Your task to perform on an android device: Open Youtube and go to "Your channel" Image 0: 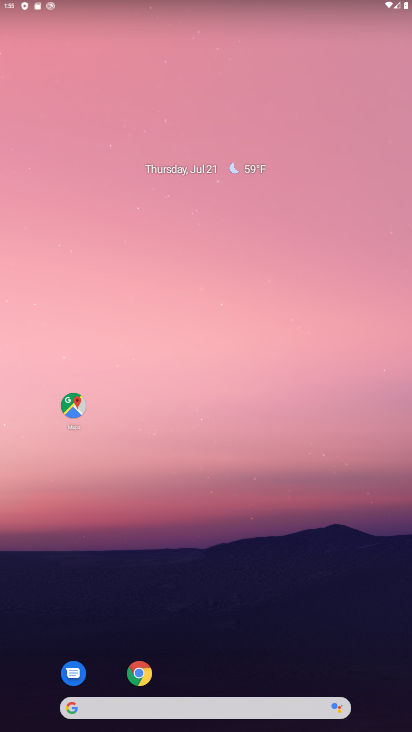
Step 0: drag from (185, 712) to (149, 162)
Your task to perform on an android device: Open Youtube and go to "Your channel" Image 1: 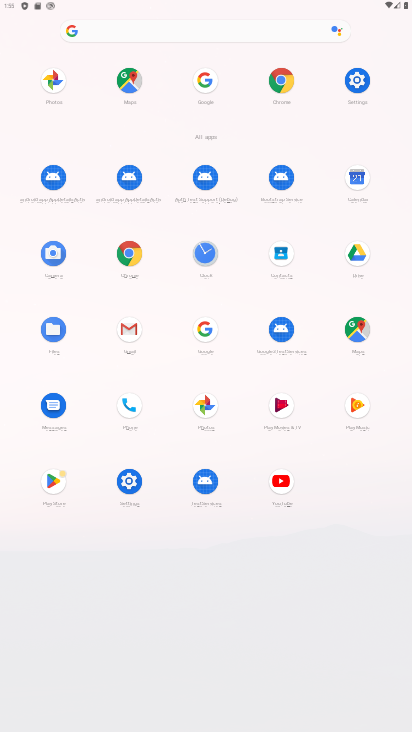
Step 1: click (282, 479)
Your task to perform on an android device: Open Youtube and go to "Your channel" Image 2: 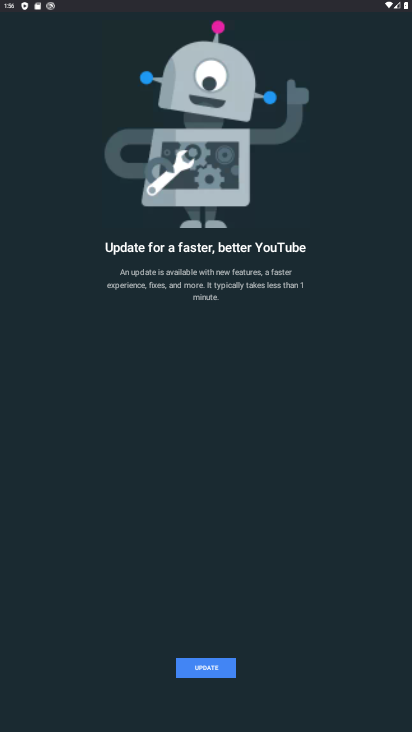
Step 2: click (214, 670)
Your task to perform on an android device: Open Youtube and go to "Your channel" Image 3: 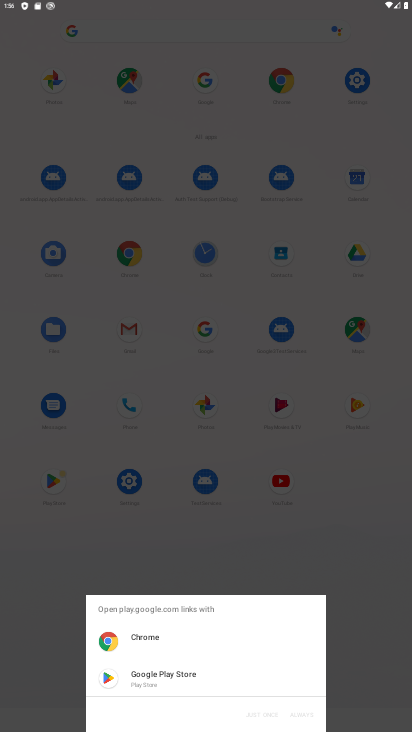
Step 3: click (160, 677)
Your task to perform on an android device: Open Youtube and go to "Your channel" Image 4: 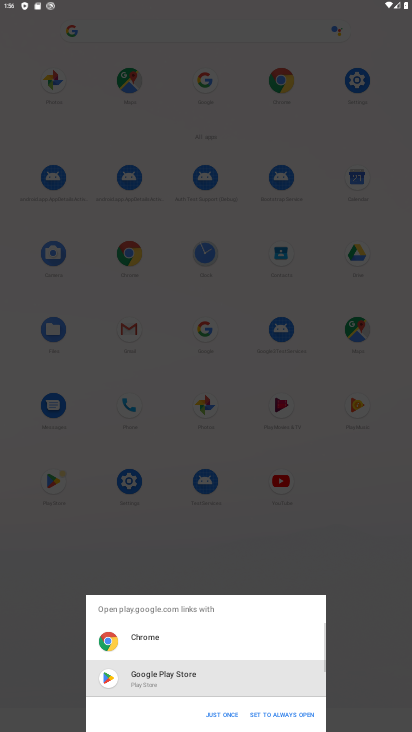
Step 4: click (216, 713)
Your task to perform on an android device: Open Youtube and go to "Your channel" Image 5: 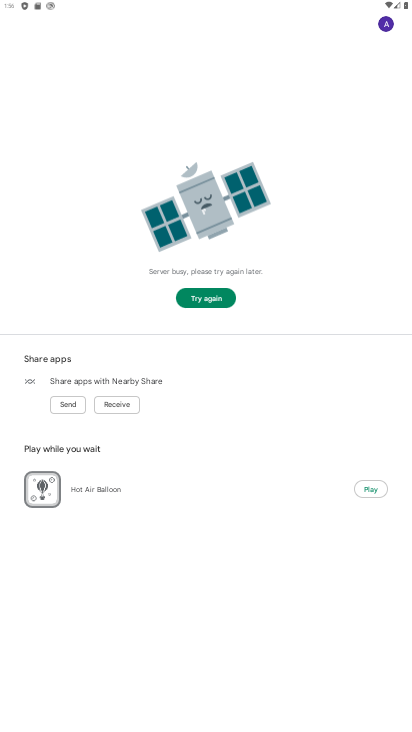
Step 5: click (203, 303)
Your task to perform on an android device: Open Youtube and go to "Your channel" Image 6: 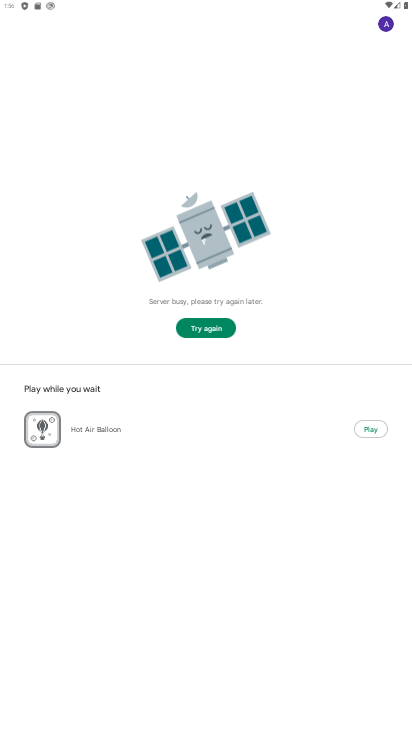
Step 6: click (210, 332)
Your task to perform on an android device: Open Youtube and go to "Your channel" Image 7: 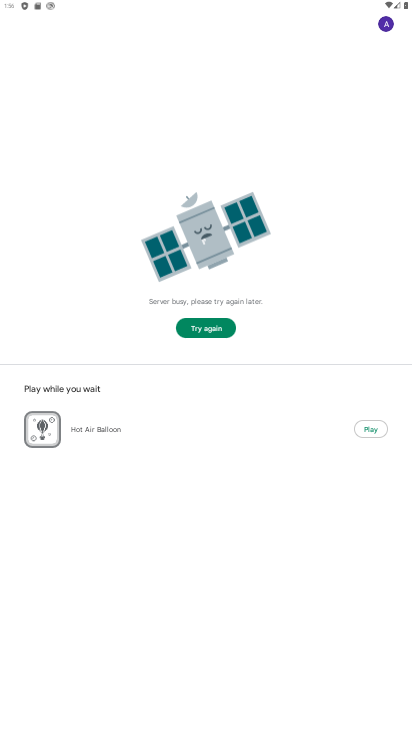
Step 7: click (386, 29)
Your task to perform on an android device: Open Youtube and go to "Your channel" Image 8: 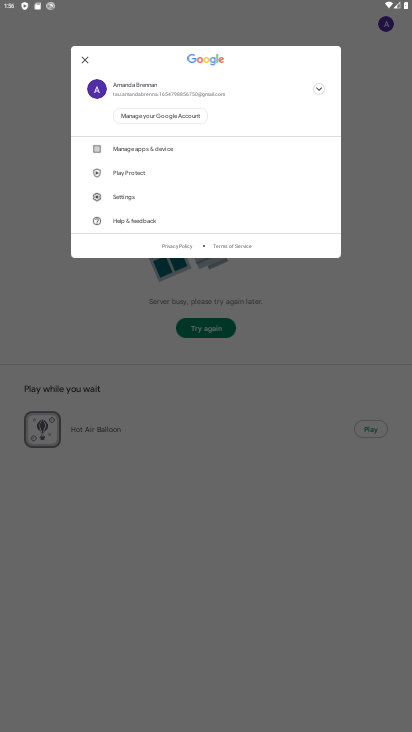
Step 8: click (76, 57)
Your task to perform on an android device: Open Youtube and go to "Your channel" Image 9: 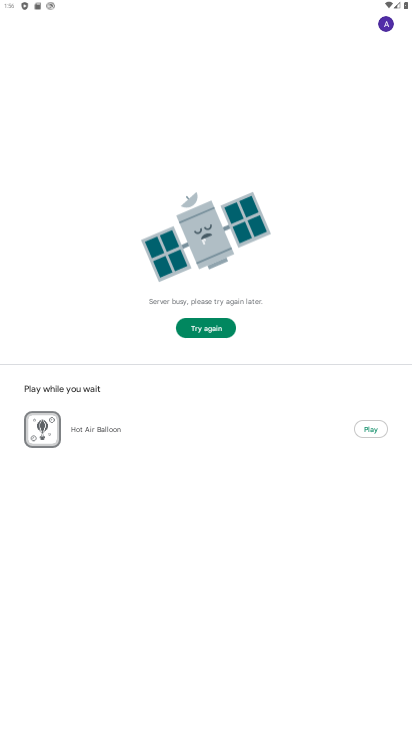
Step 9: task complete